Your task to perform on an android device: turn on wifi Image 0: 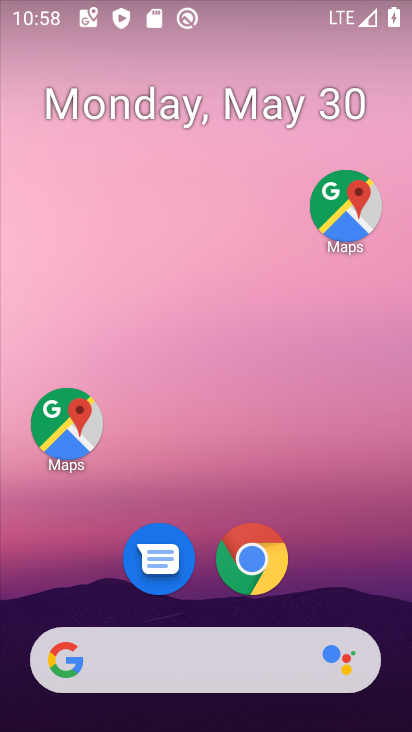
Step 0: drag from (357, 587) to (344, 212)
Your task to perform on an android device: turn on wifi Image 1: 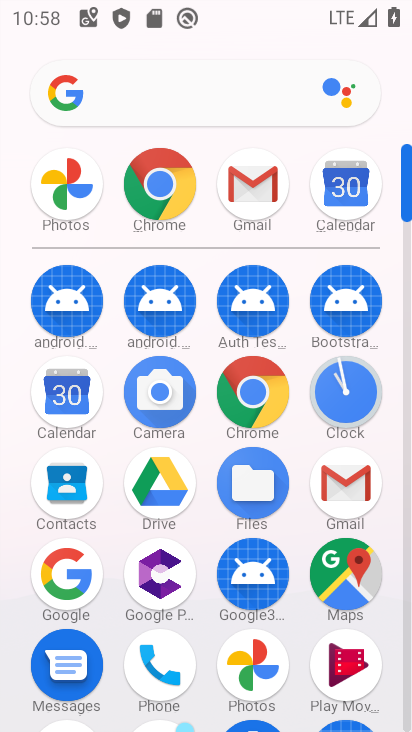
Step 1: drag from (305, 524) to (329, 221)
Your task to perform on an android device: turn on wifi Image 2: 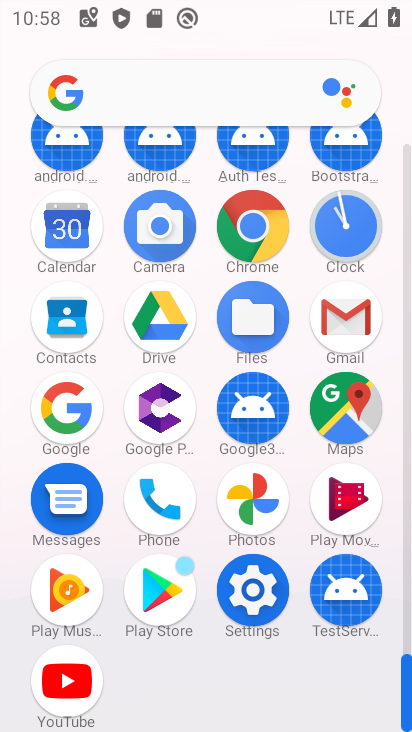
Step 2: click (237, 590)
Your task to perform on an android device: turn on wifi Image 3: 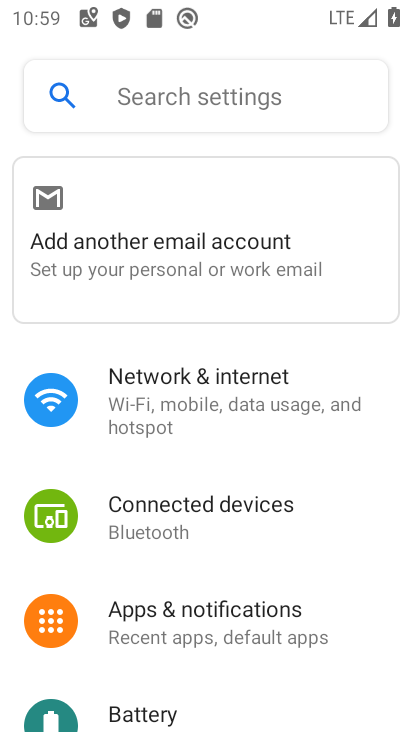
Step 3: click (202, 409)
Your task to perform on an android device: turn on wifi Image 4: 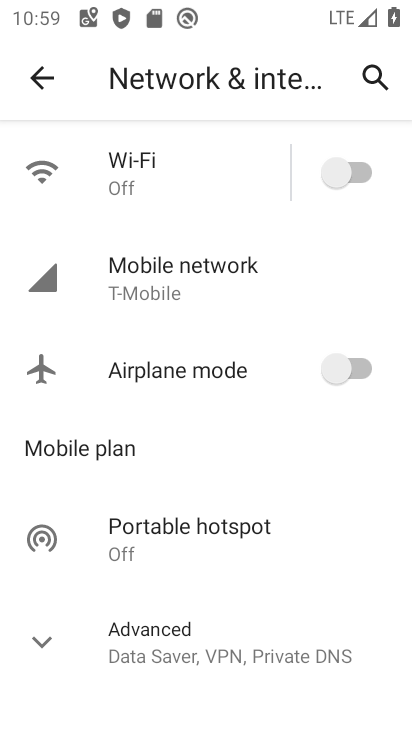
Step 4: click (352, 175)
Your task to perform on an android device: turn on wifi Image 5: 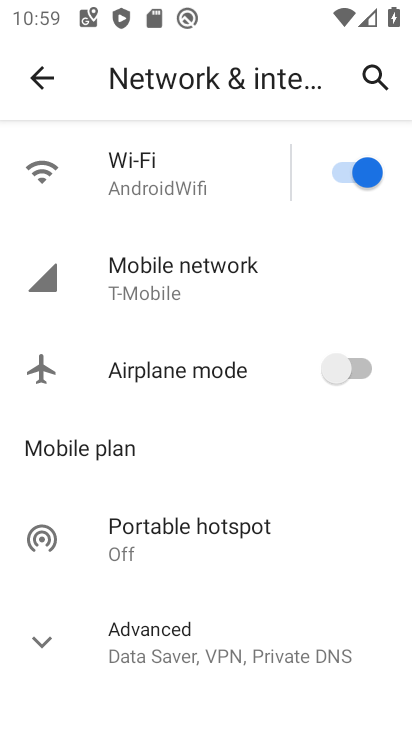
Step 5: task complete